Your task to perform on an android device: open app "Move to iOS" (install if not already installed) Image 0: 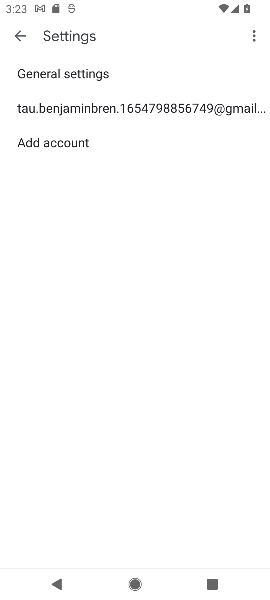
Step 0: press home button
Your task to perform on an android device: open app "Move to iOS" (install if not already installed) Image 1: 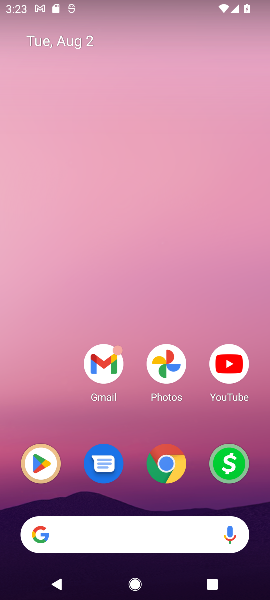
Step 1: click (42, 467)
Your task to perform on an android device: open app "Move to iOS" (install if not already installed) Image 2: 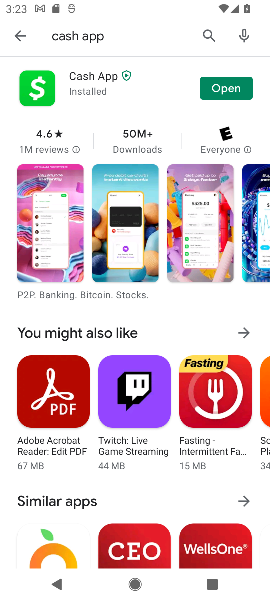
Step 2: click (206, 35)
Your task to perform on an android device: open app "Move to iOS" (install if not already installed) Image 3: 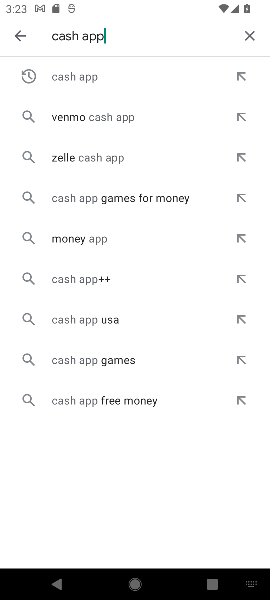
Step 3: click (246, 36)
Your task to perform on an android device: open app "Move to iOS" (install if not already installed) Image 4: 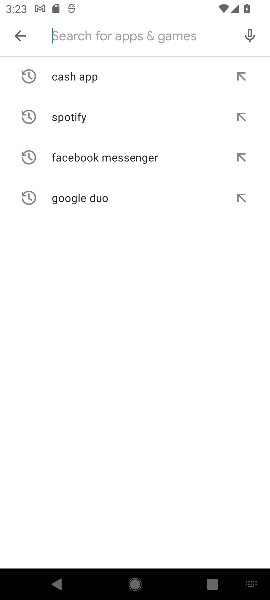
Step 4: type "Move to iOS"
Your task to perform on an android device: open app "Move to iOS" (install if not already installed) Image 5: 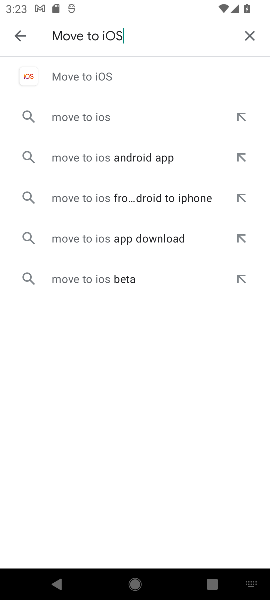
Step 5: click (100, 83)
Your task to perform on an android device: open app "Move to iOS" (install if not already installed) Image 6: 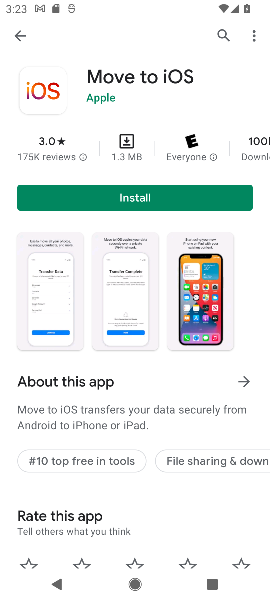
Step 6: click (142, 194)
Your task to perform on an android device: open app "Move to iOS" (install if not already installed) Image 7: 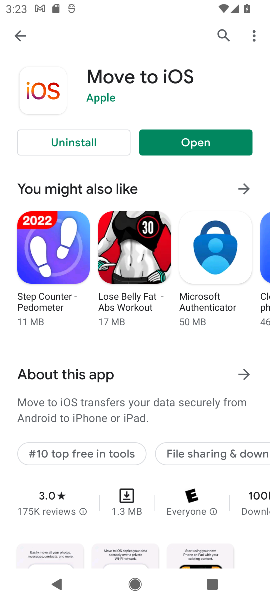
Step 7: click (216, 137)
Your task to perform on an android device: open app "Move to iOS" (install if not already installed) Image 8: 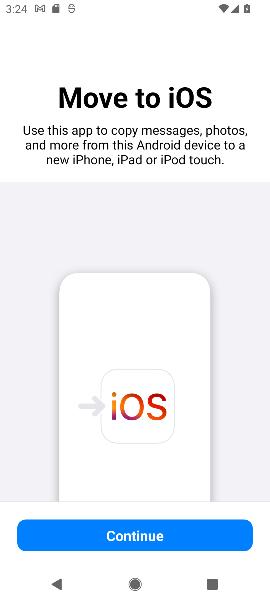
Step 8: task complete